Your task to perform on an android device: open app "Speedtest by Ookla" Image 0: 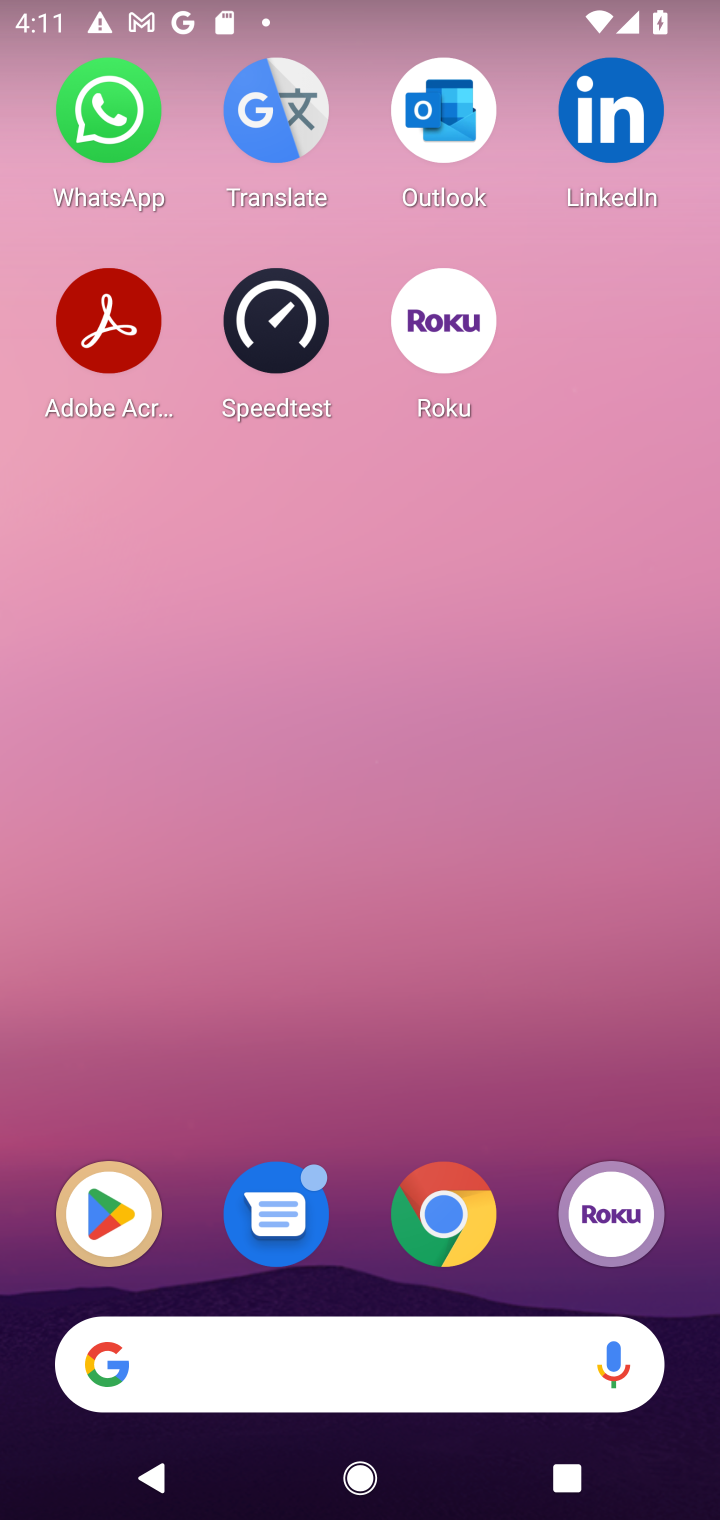
Step 0: click (265, 315)
Your task to perform on an android device: open app "Speedtest by Ookla" Image 1: 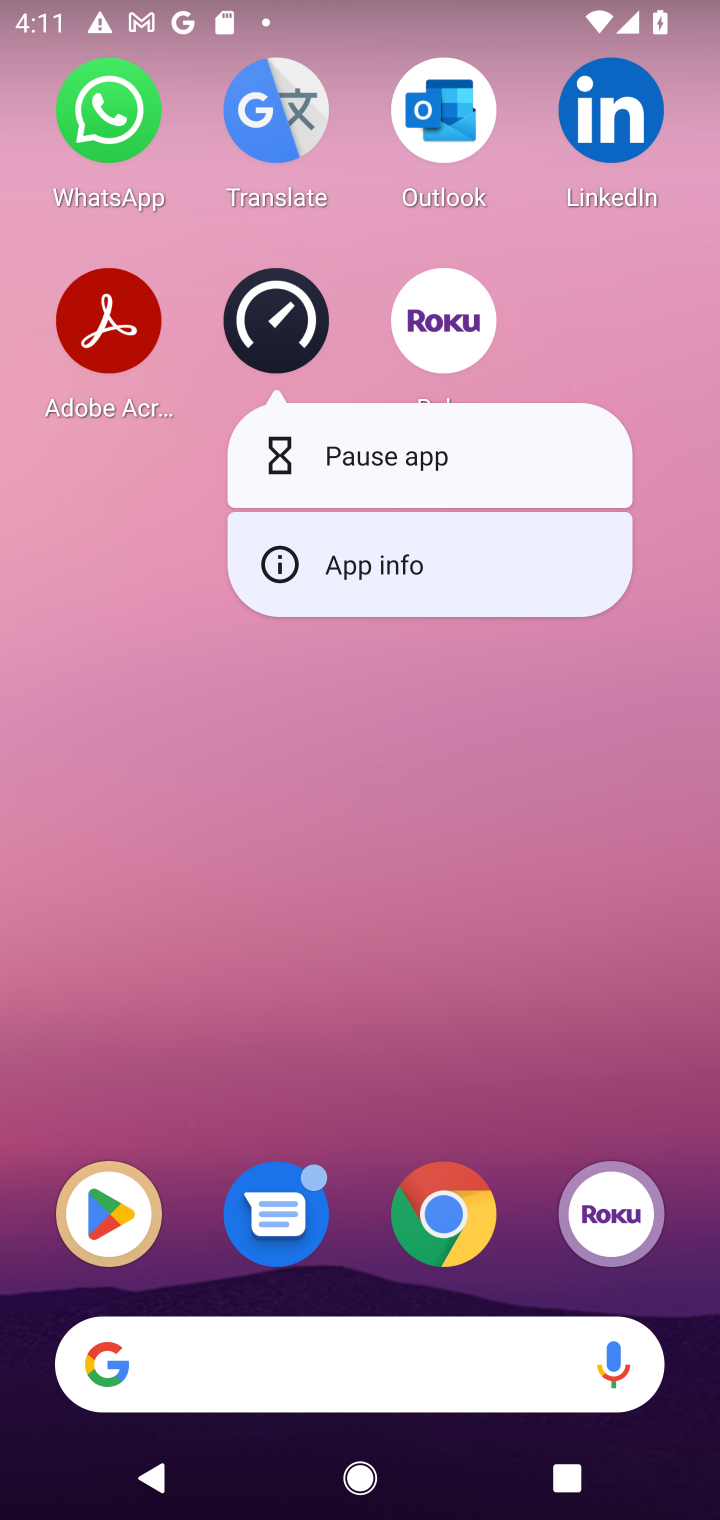
Step 1: click (271, 321)
Your task to perform on an android device: open app "Speedtest by Ookla" Image 2: 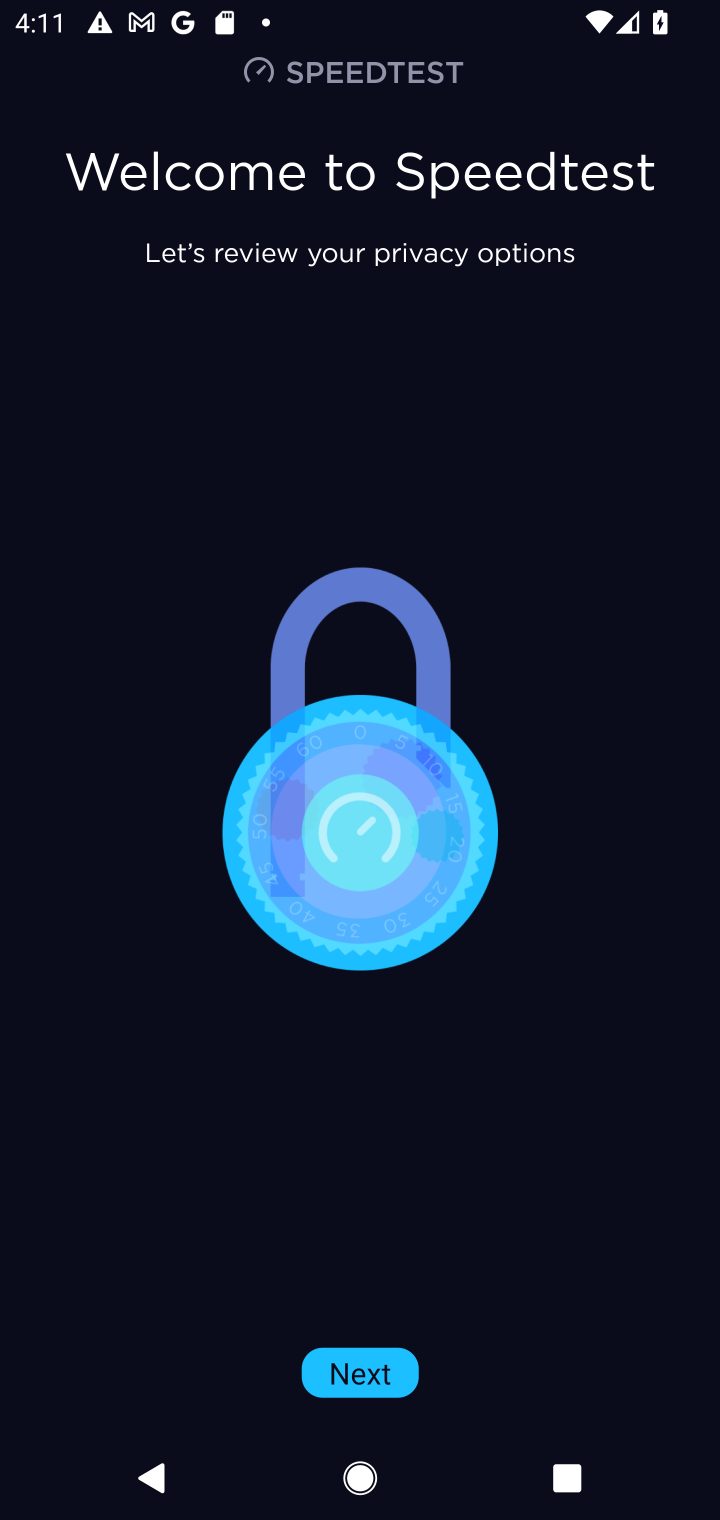
Step 2: click (349, 1358)
Your task to perform on an android device: open app "Speedtest by Ookla" Image 3: 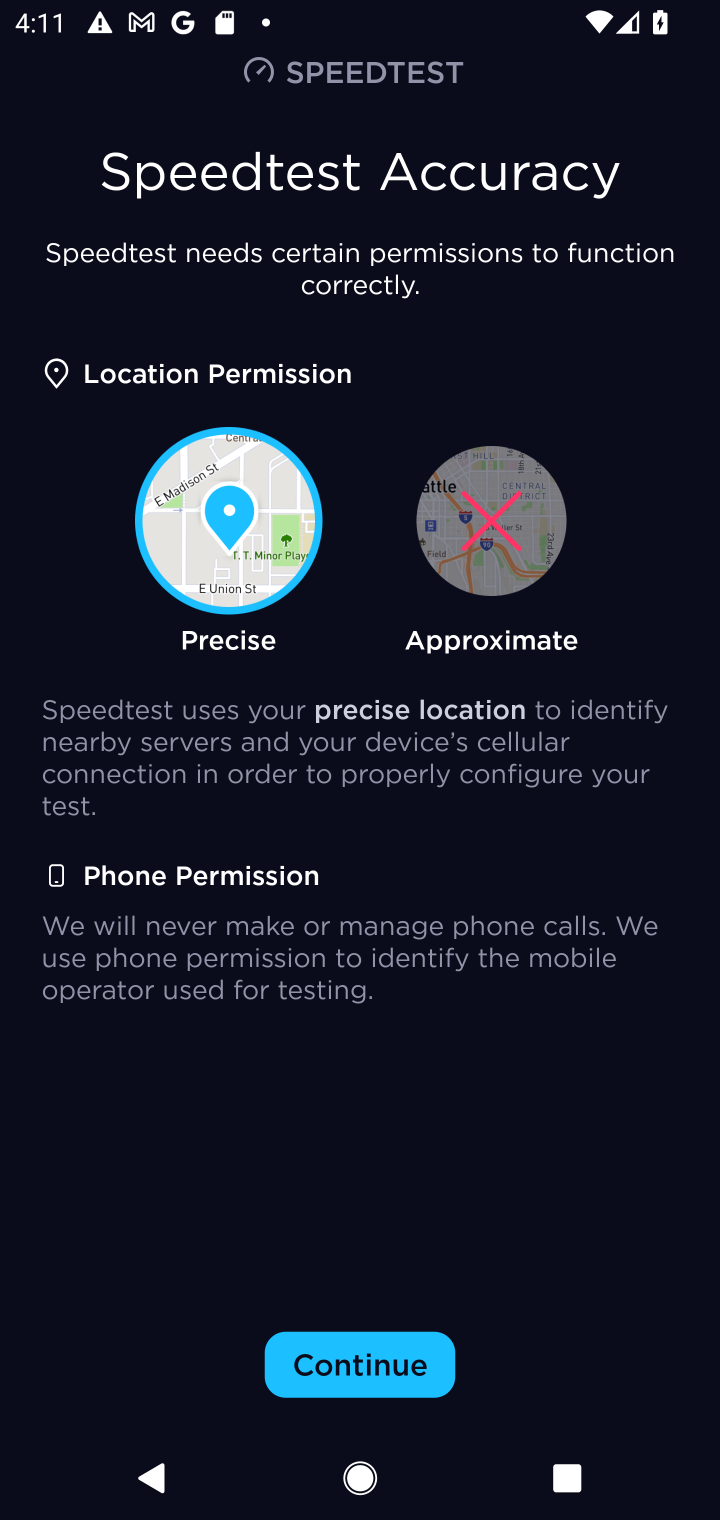
Step 3: click (395, 1393)
Your task to perform on an android device: open app "Speedtest by Ookla" Image 4: 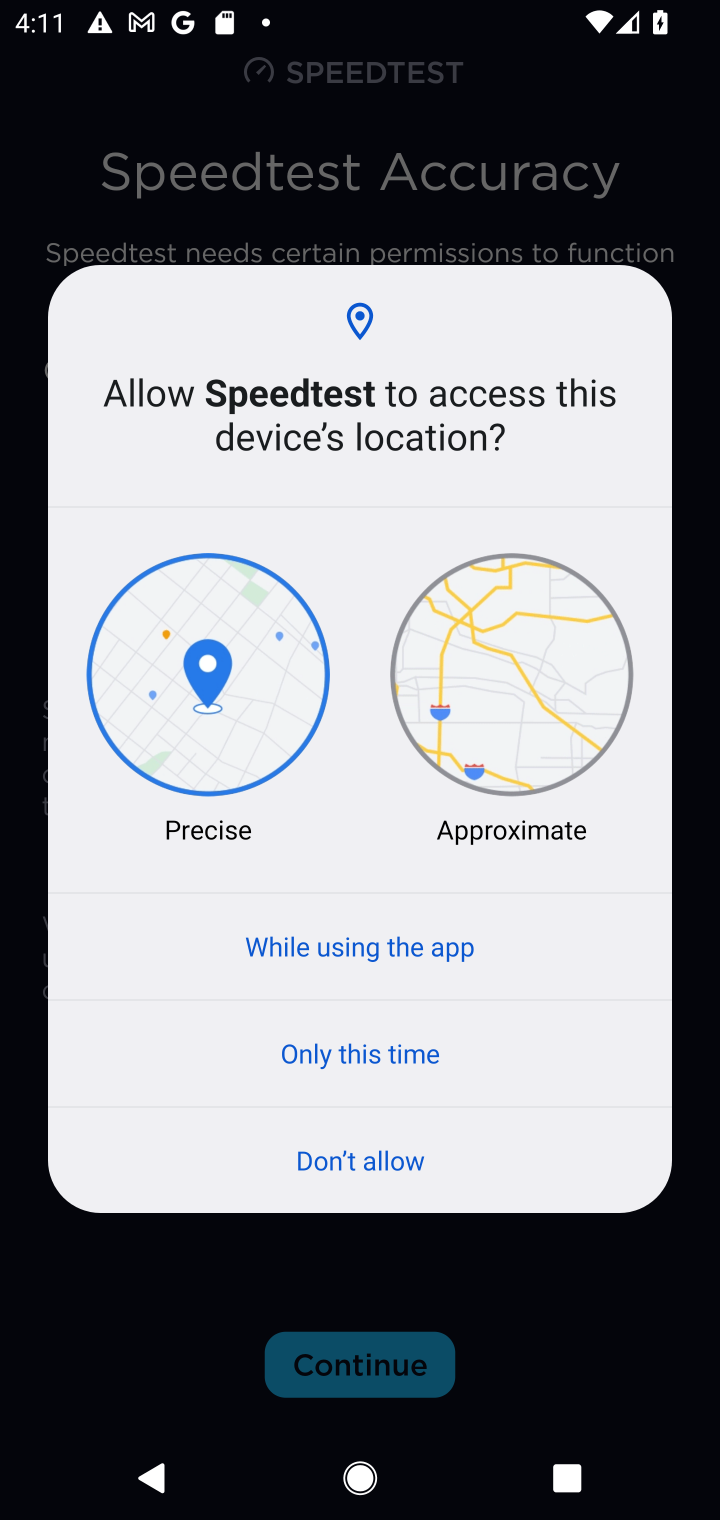
Step 4: click (425, 957)
Your task to perform on an android device: open app "Speedtest by Ookla" Image 5: 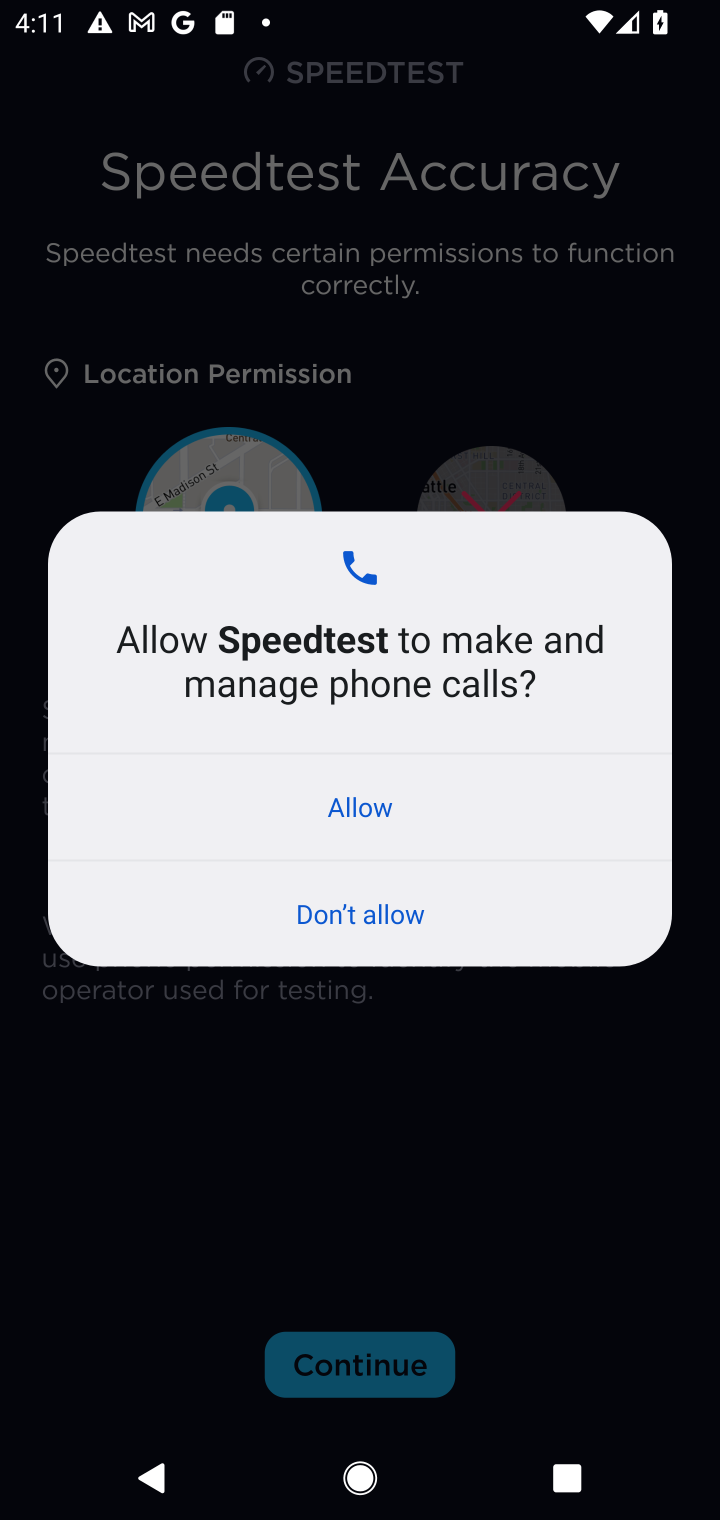
Step 5: click (384, 789)
Your task to perform on an android device: open app "Speedtest by Ookla" Image 6: 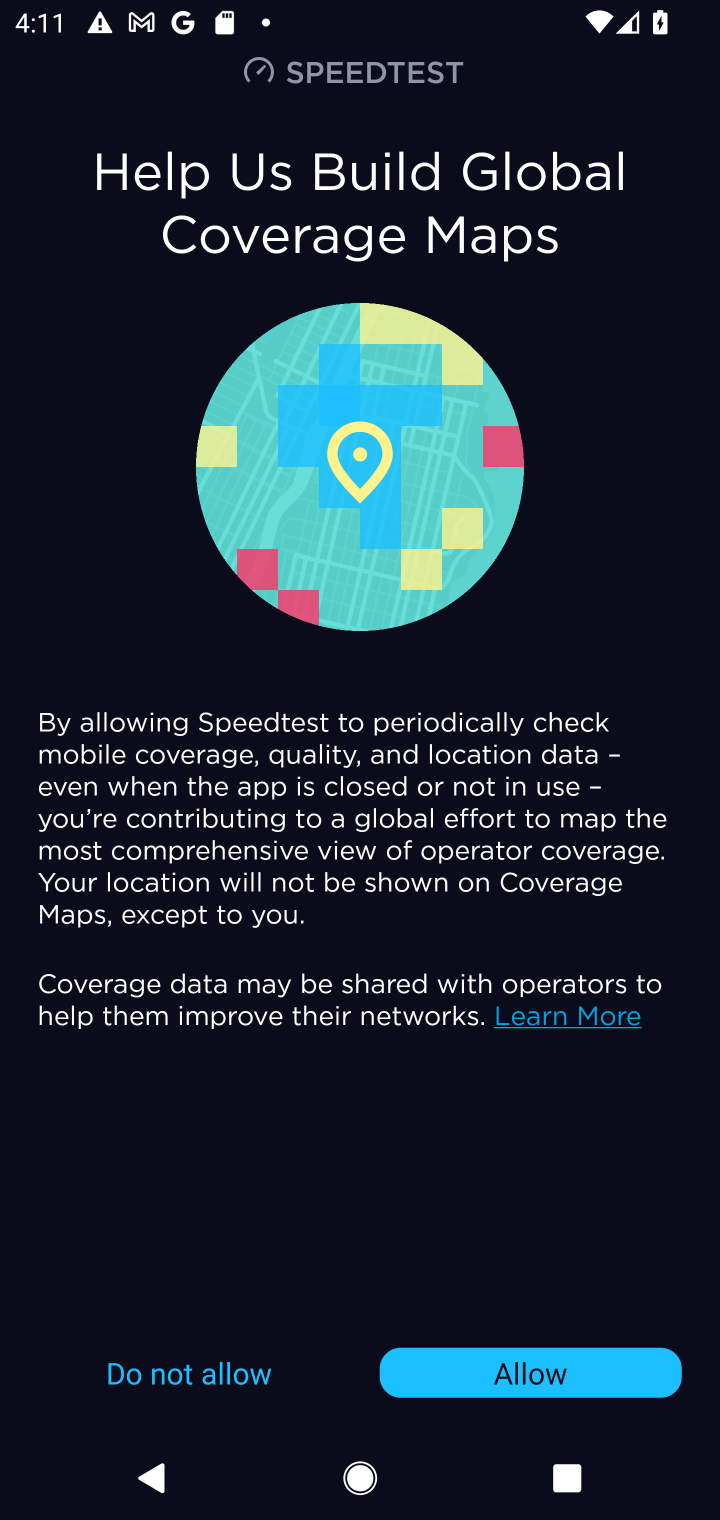
Step 6: click (565, 1372)
Your task to perform on an android device: open app "Speedtest by Ookla" Image 7: 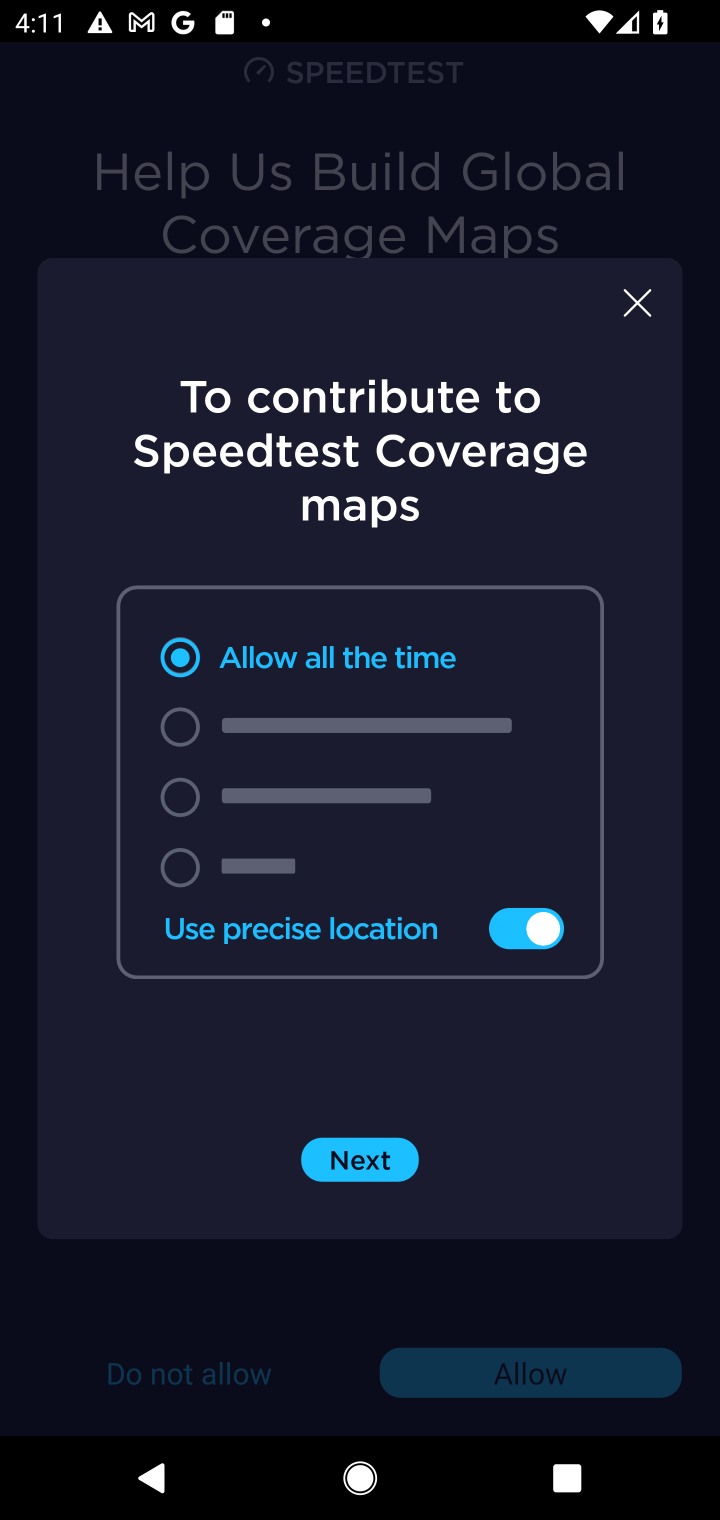
Step 7: click (642, 310)
Your task to perform on an android device: open app "Speedtest by Ookla" Image 8: 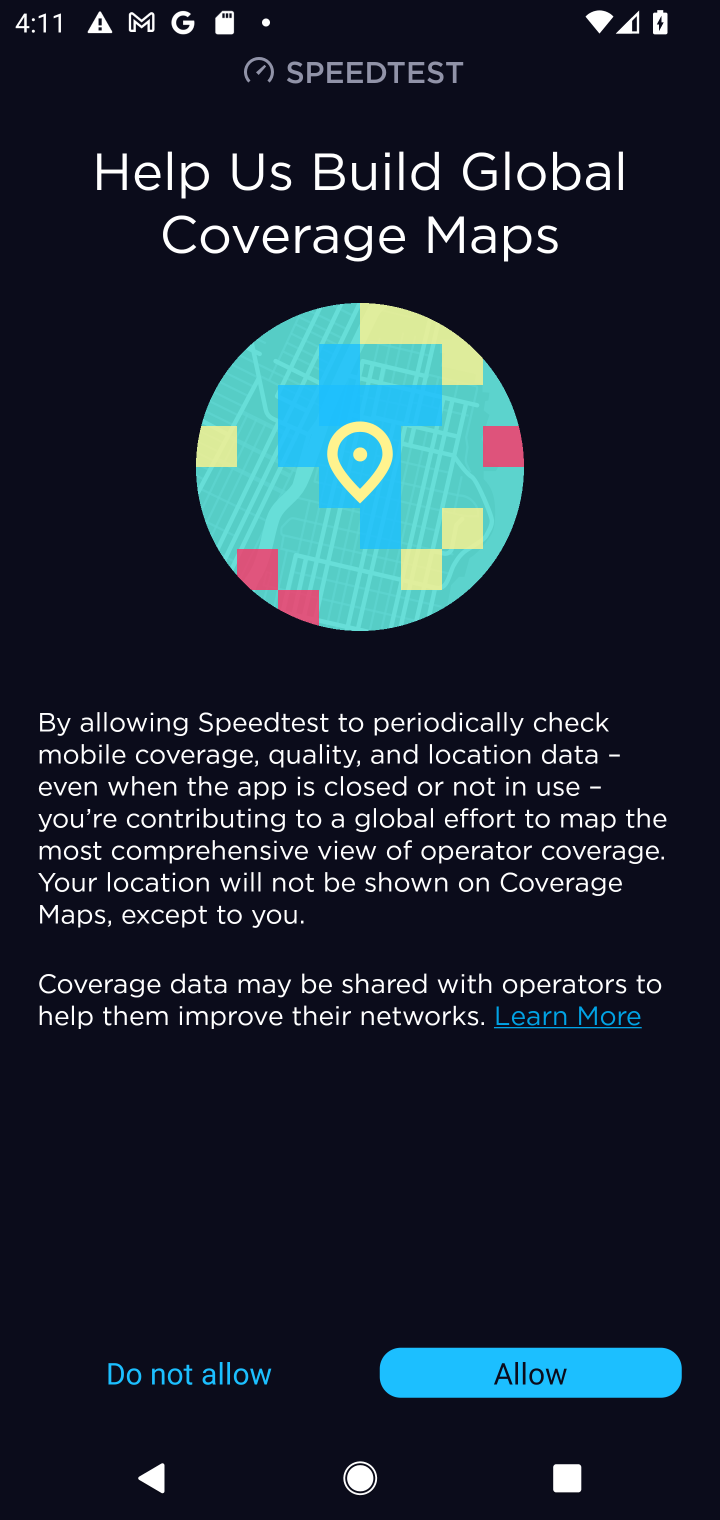
Step 8: click (461, 1374)
Your task to perform on an android device: open app "Speedtest by Ookla" Image 9: 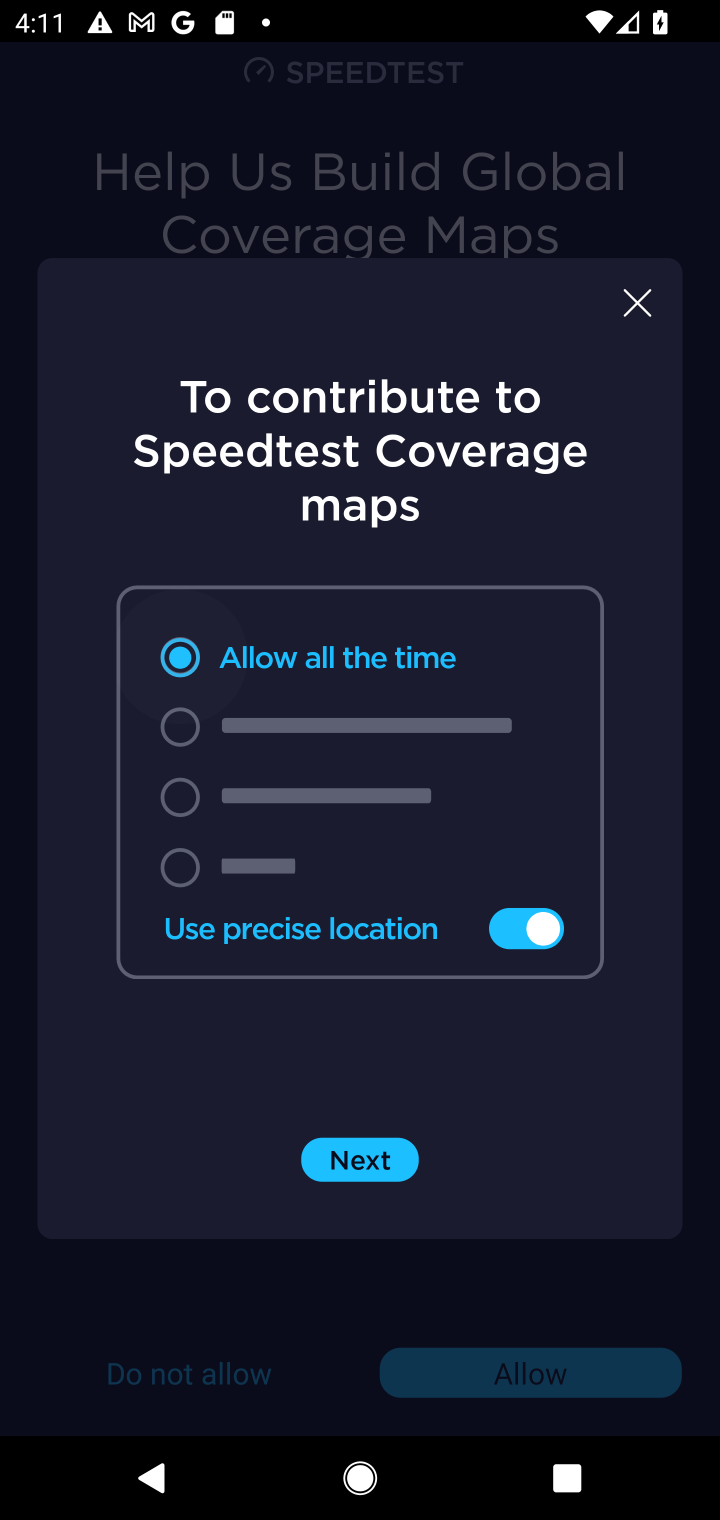
Step 9: click (358, 1156)
Your task to perform on an android device: open app "Speedtest by Ookla" Image 10: 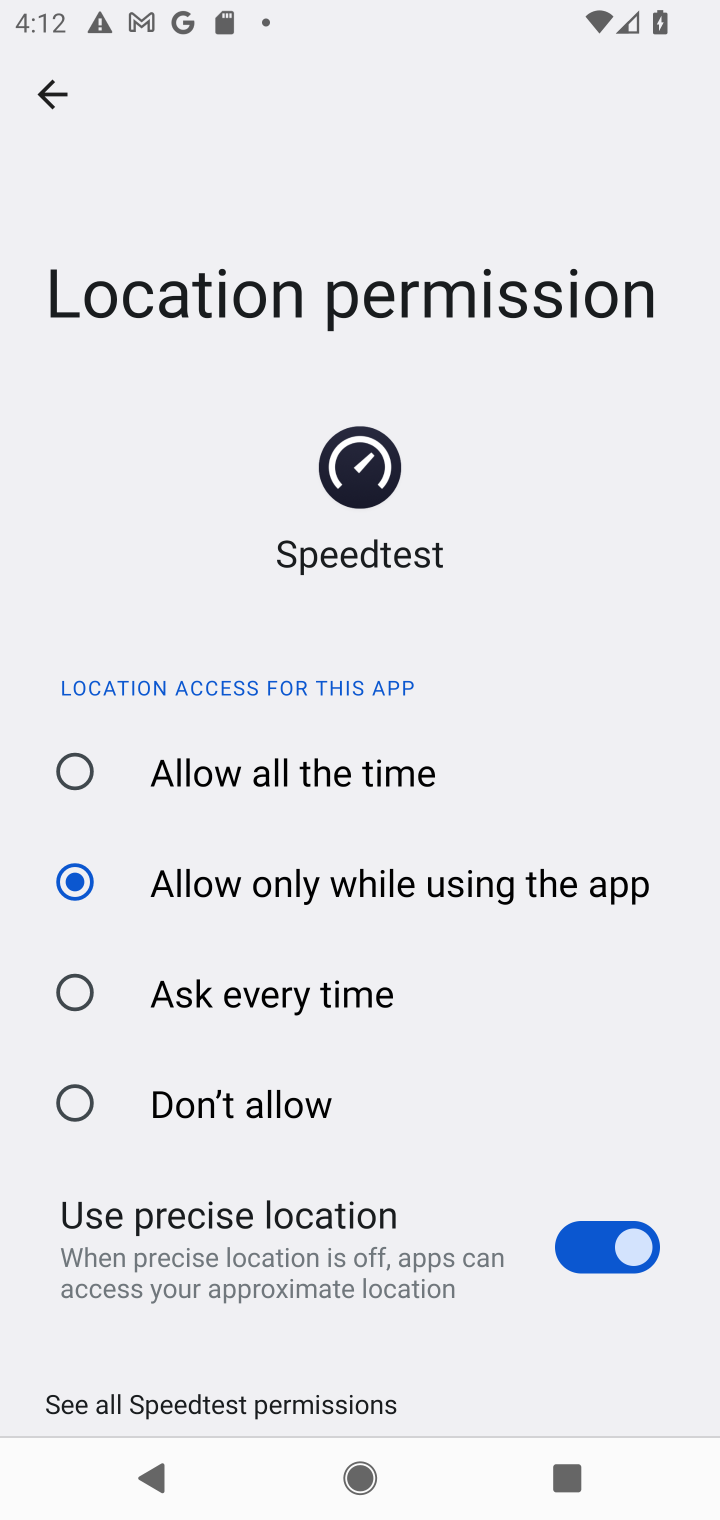
Step 10: click (45, 84)
Your task to perform on an android device: open app "Speedtest by Ookla" Image 11: 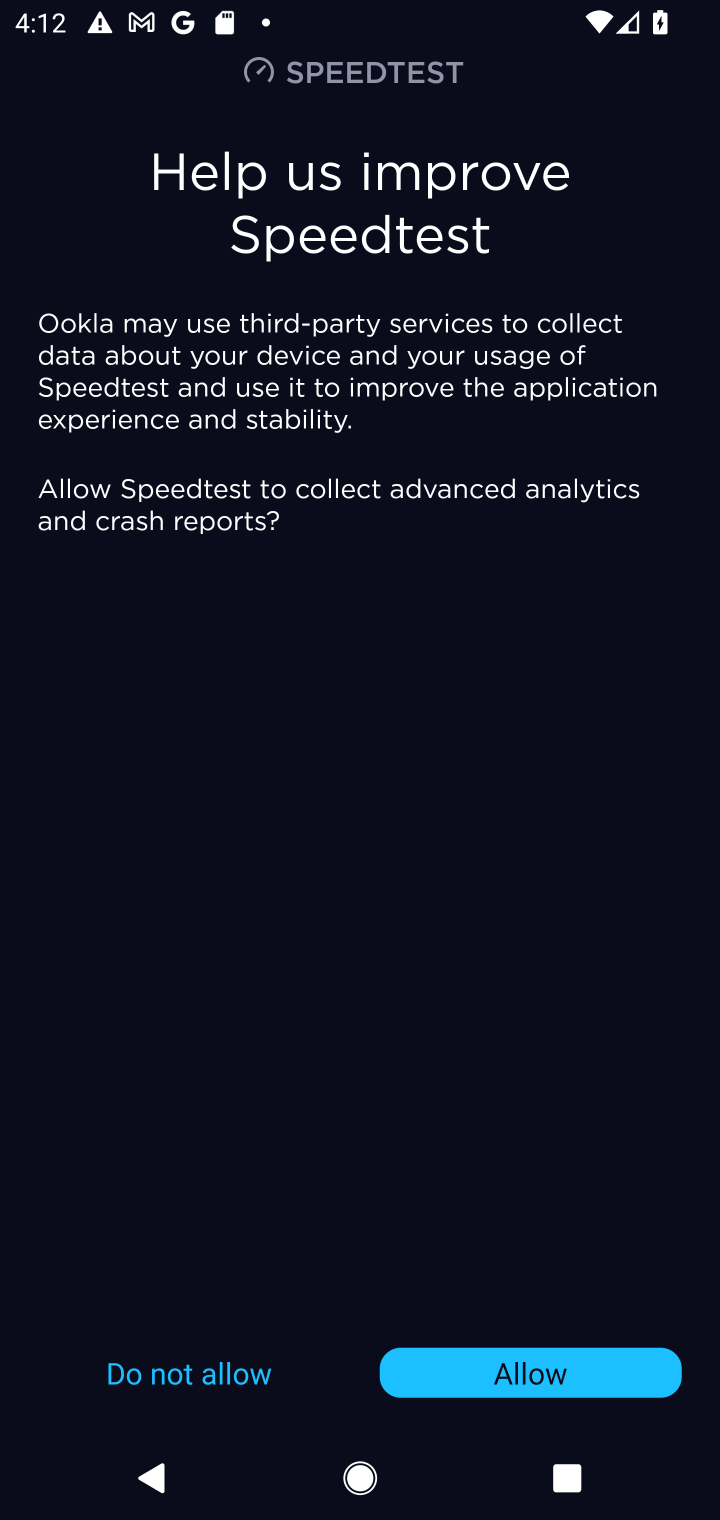
Step 11: click (458, 1389)
Your task to perform on an android device: open app "Speedtest by Ookla" Image 12: 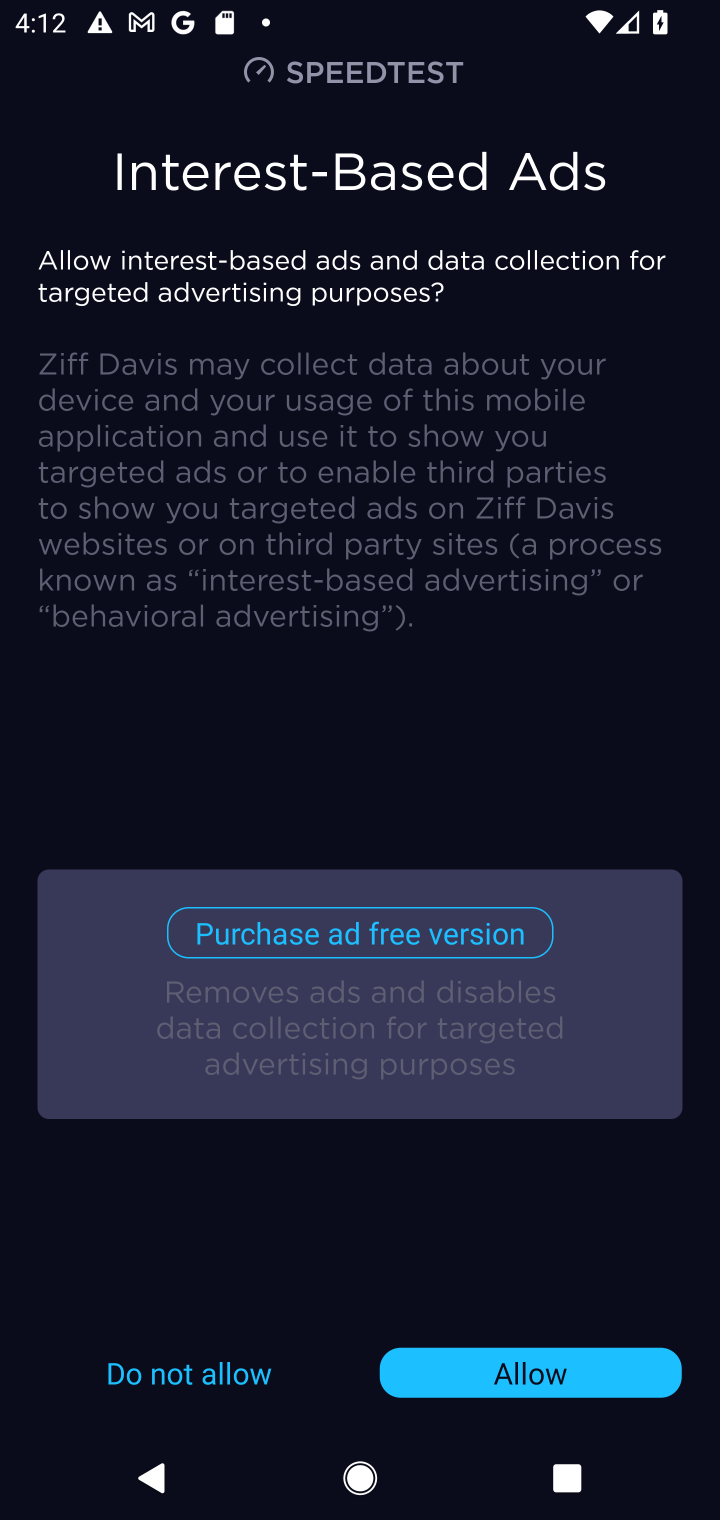
Step 12: click (437, 1376)
Your task to perform on an android device: open app "Speedtest by Ookla" Image 13: 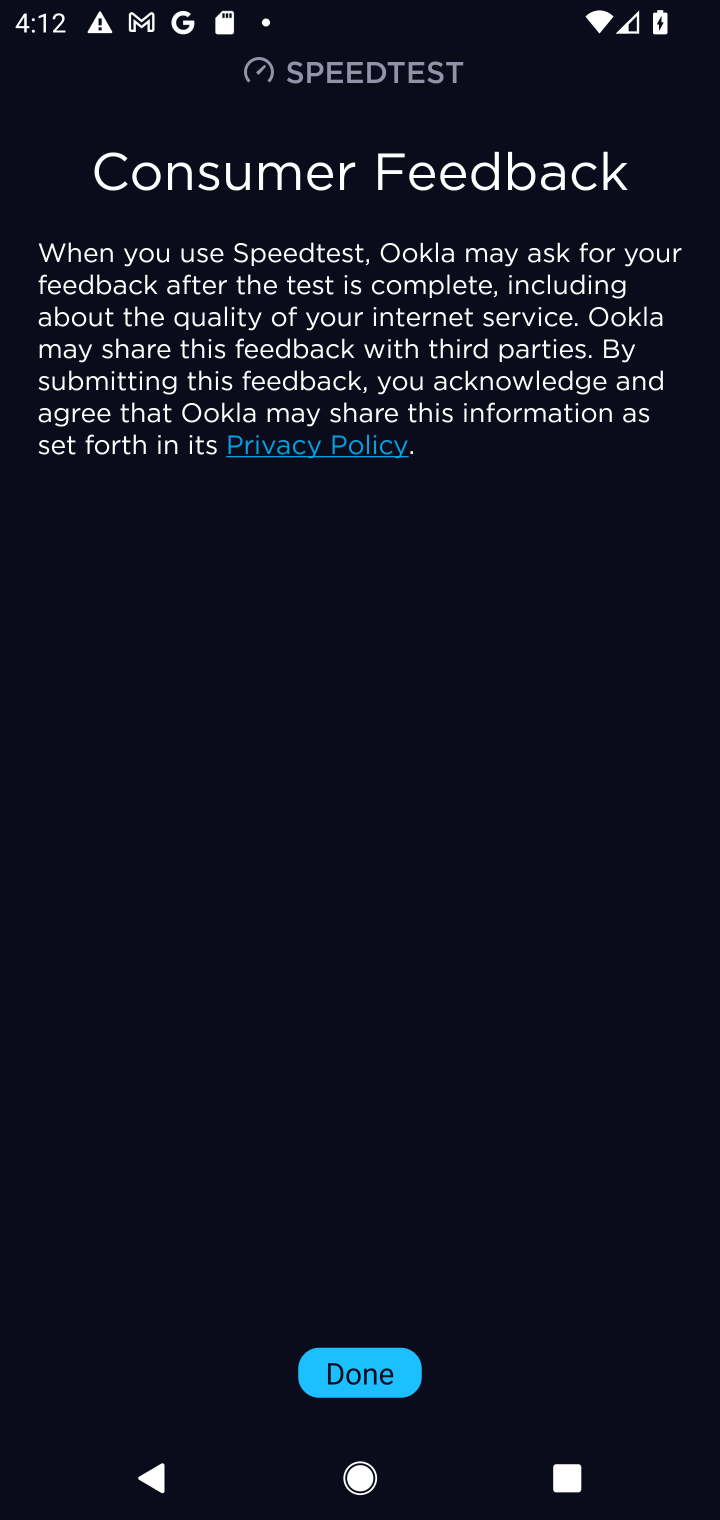
Step 13: click (378, 1383)
Your task to perform on an android device: open app "Speedtest by Ookla" Image 14: 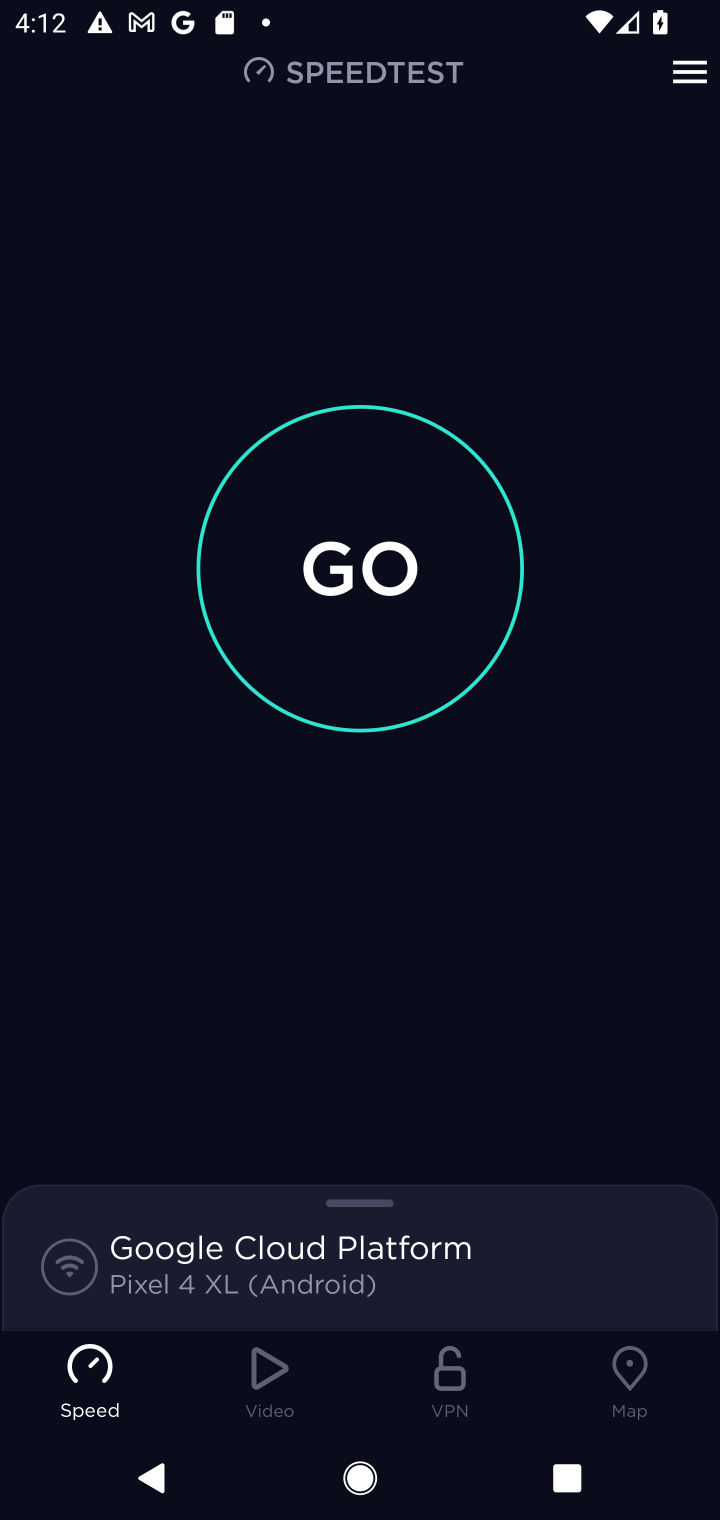
Step 14: click (341, 640)
Your task to perform on an android device: open app "Speedtest by Ookla" Image 15: 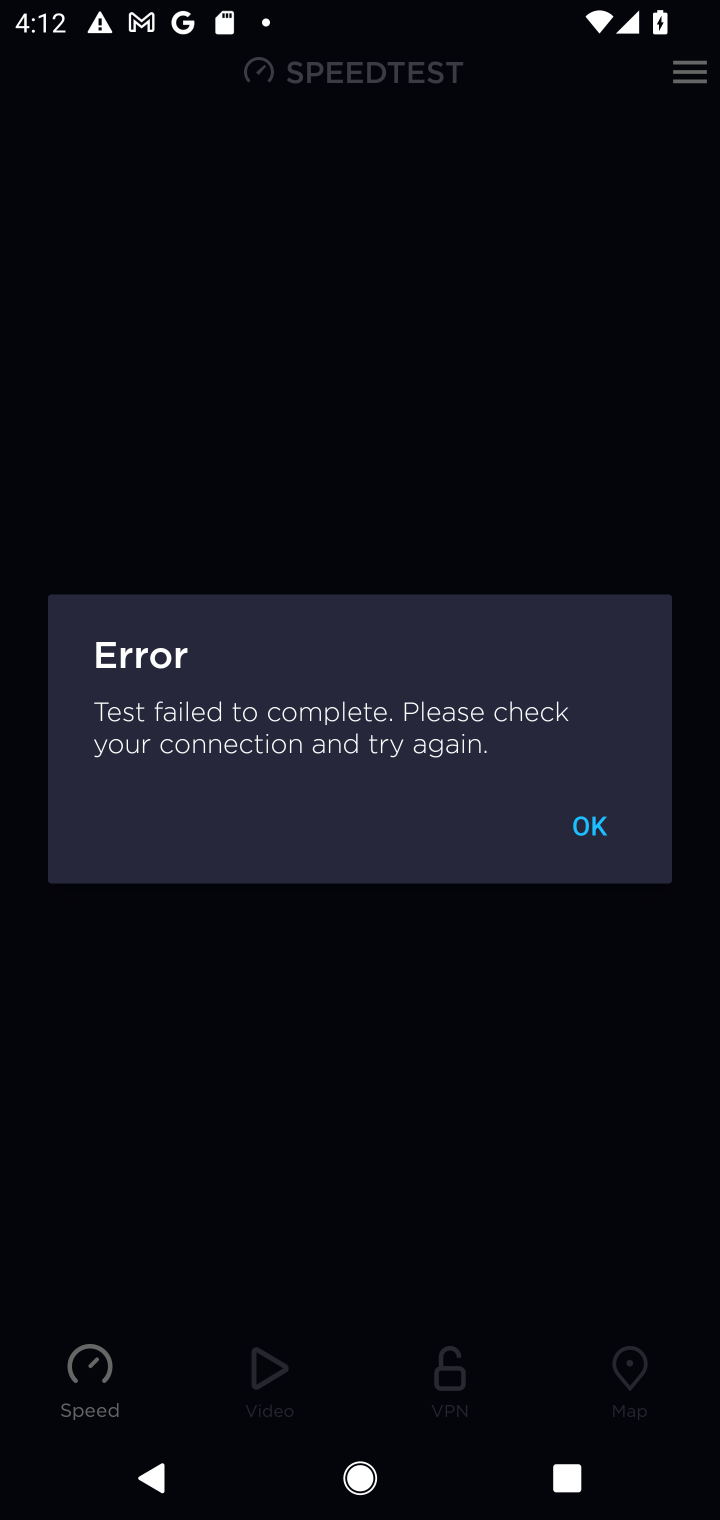
Step 15: click (627, 856)
Your task to perform on an android device: open app "Speedtest by Ookla" Image 16: 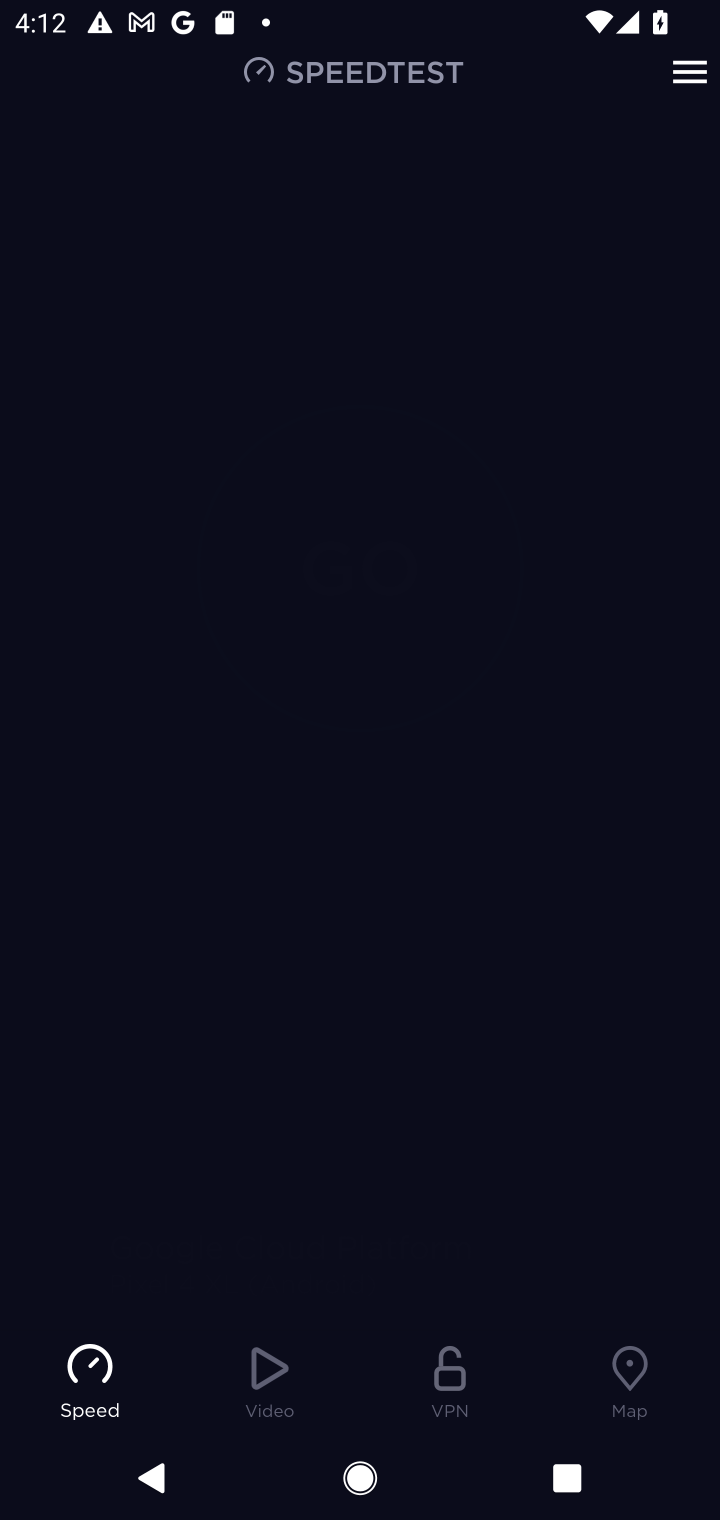
Step 16: task complete